Your task to perform on an android device: Open location settings Image 0: 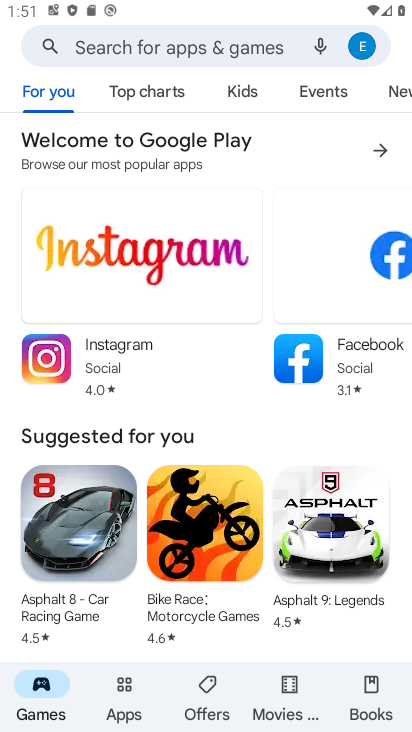
Step 0: press home button
Your task to perform on an android device: Open location settings Image 1: 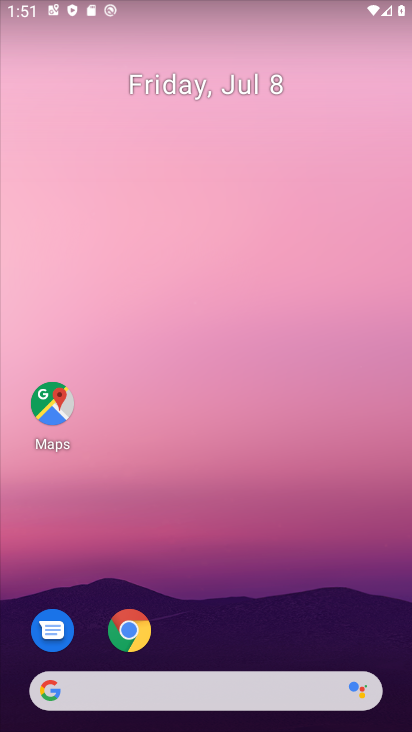
Step 1: drag from (218, 651) to (196, 174)
Your task to perform on an android device: Open location settings Image 2: 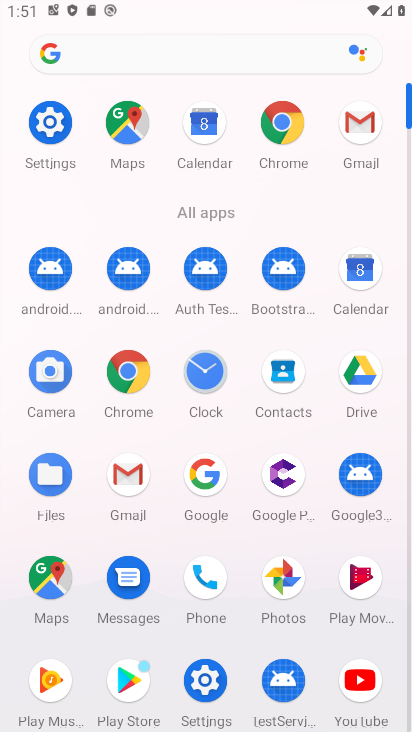
Step 2: click (50, 118)
Your task to perform on an android device: Open location settings Image 3: 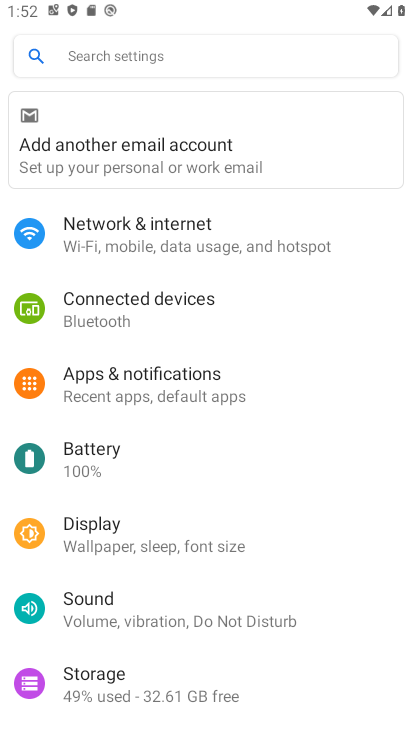
Step 3: drag from (170, 662) to (191, 151)
Your task to perform on an android device: Open location settings Image 4: 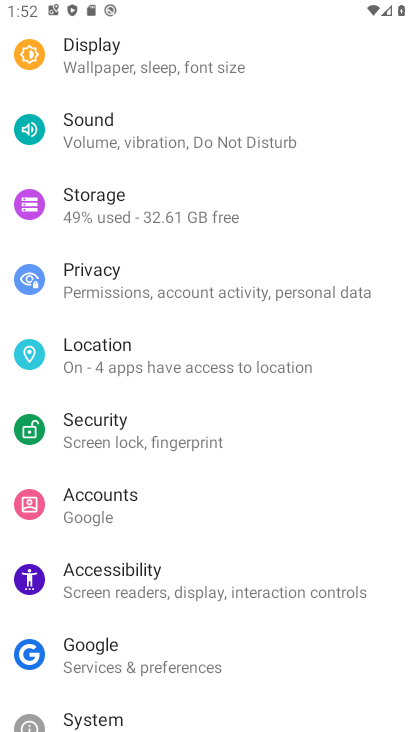
Step 4: click (133, 347)
Your task to perform on an android device: Open location settings Image 5: 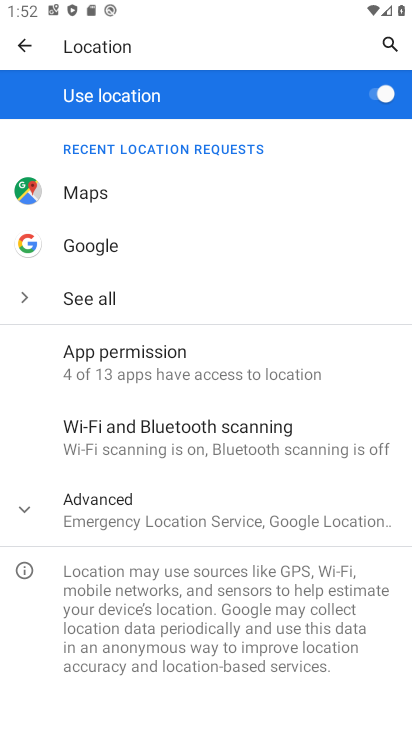
Step 5: click (35, 514)
Your task to perform on an android device: Open location settings Image 6: 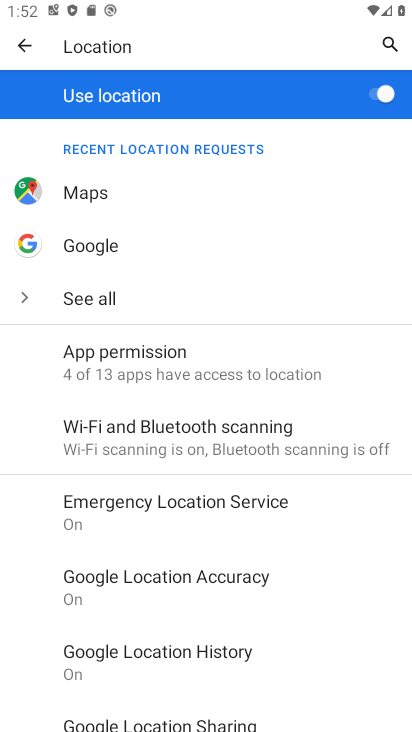
Step 6: task complete